Your task to perform on an android device: Go to Yahoo.com Image 0: 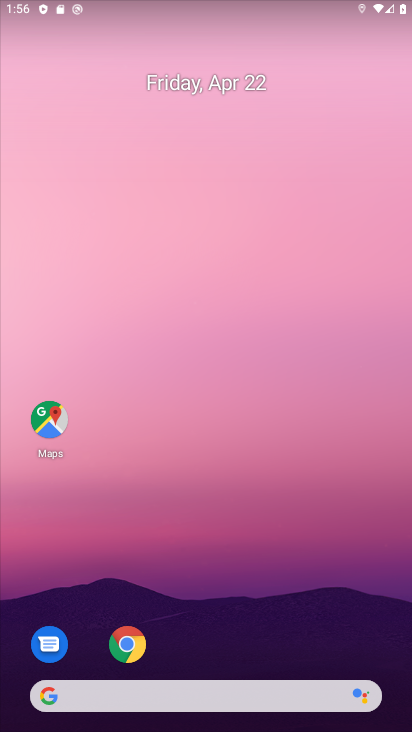
Step 0: click (133, 649)
Your task to perform on an android device: Go to Yahoo.com Image 1: 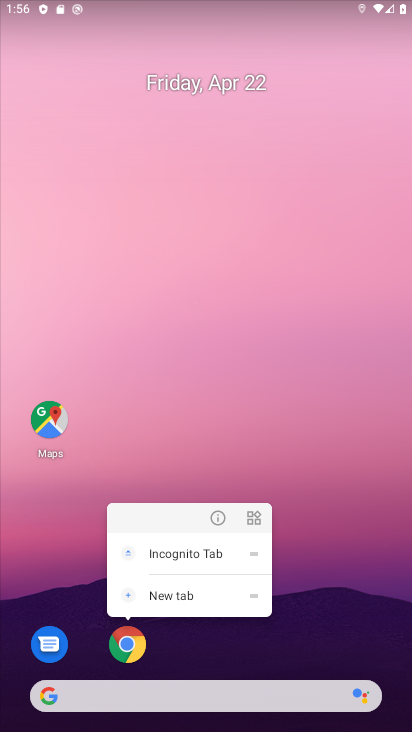
Step 1: click (117, 643)
Your task to perform on an android device: Go to Yahoo.com Image 2: 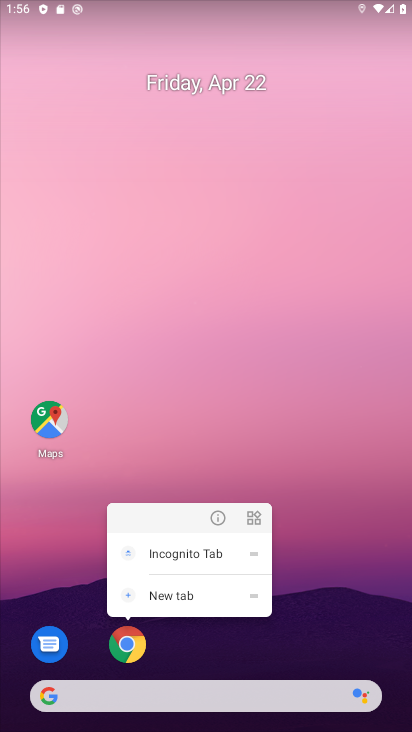
Step 2: click (118, 640)
Your task to perform on an android device: Go to Yahoo.com Image 3: 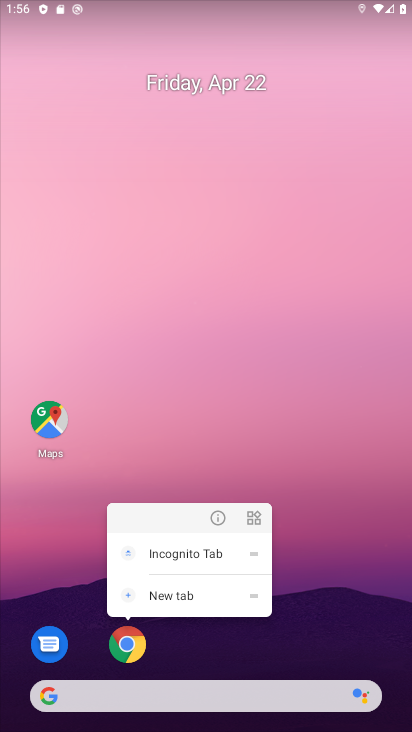
Step 3: click (121, 657)
Your task to perform on an android device: Go to Yahoo.com Image 4: 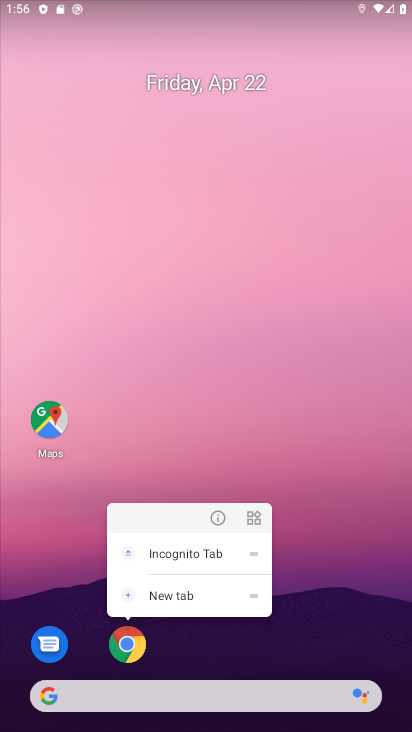
Step 4: click (125, 651)
Your task to perform on an android device: Go to Yahoo.com Image 5: 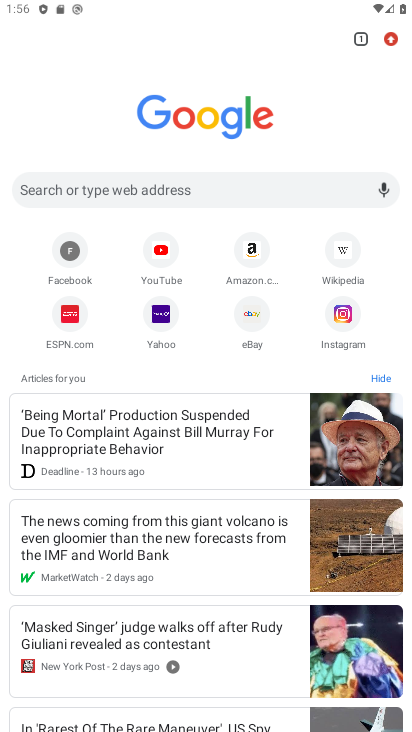
Step 5: click (153, 309)
Your task to perform on an android device: Go to Yahoo.com Image 6: 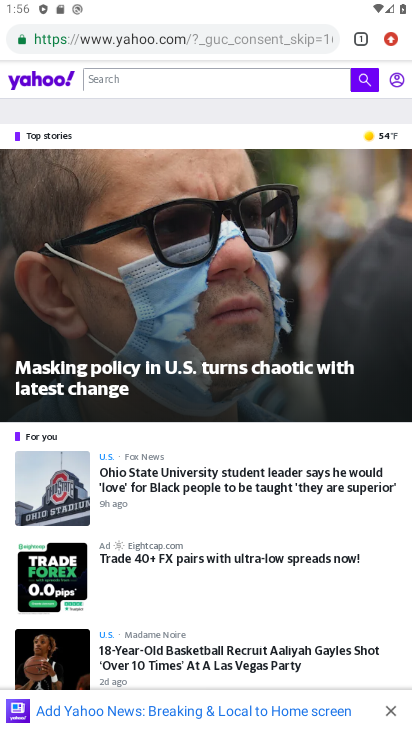
Step 6: task complete